Your task to perform on an android device: Is it going to rain tomorrow? Image 0: 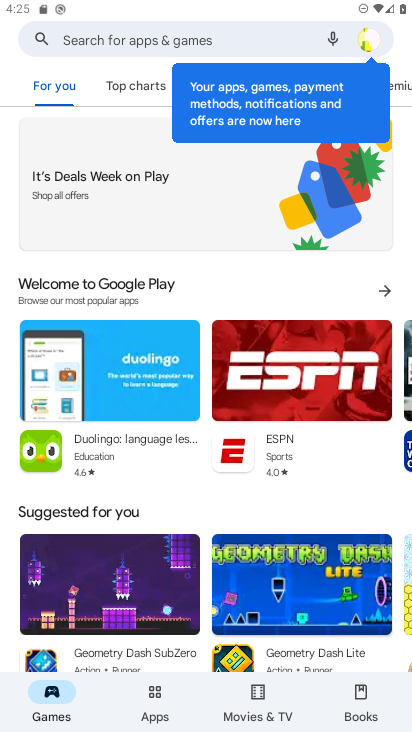
Step 0: press home button
Your task to perform on an android device: Is it going to rain tomorrow? Image 1: 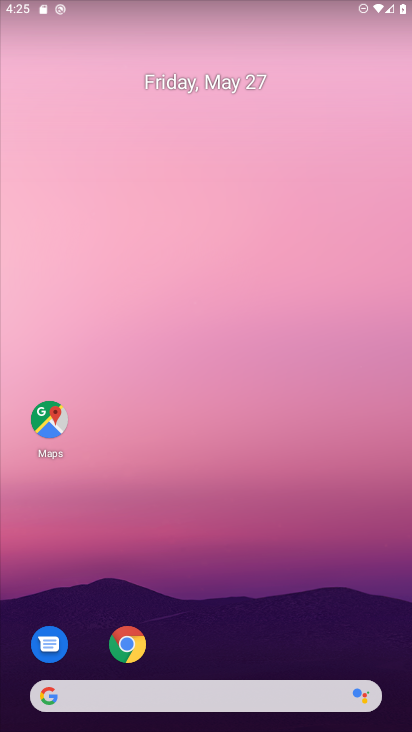
Step 1: click (155, 688)
Your task to perform on an android device: Is it going to rain tomorrow? Image 2: 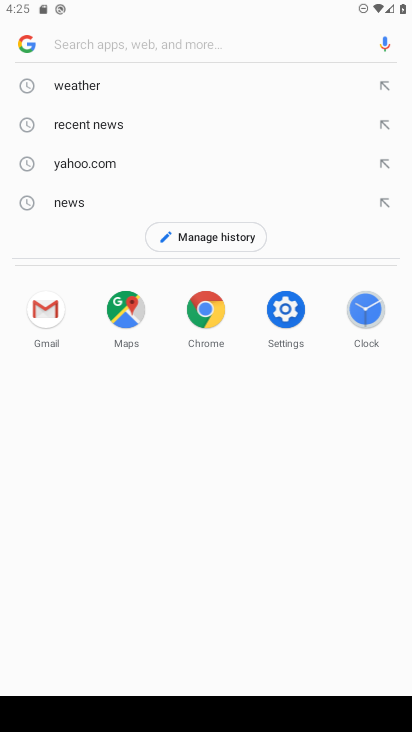
Step 2: click (109, 93)
Your task to perform on an android device: Is it going to rain tomorrow? Image 3: 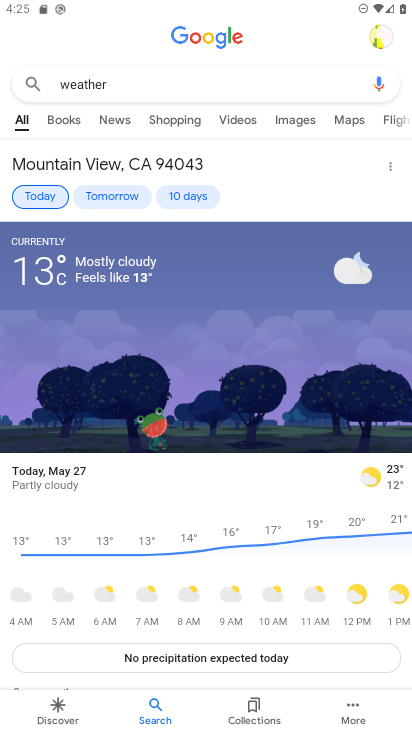
Step 3: click (113, 194)
Your task to perform on an android device: Is it going to rain tomorrow? Image 4: 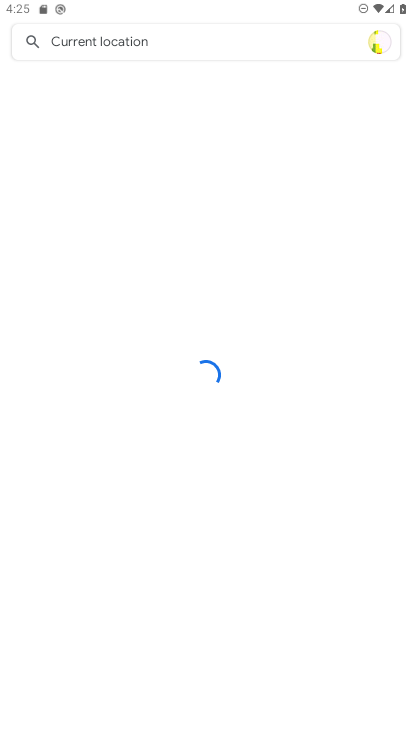
Step 4: click (113, 194)
Your task to perform on an android device: Is it going to rain tomorrow? Image 5: 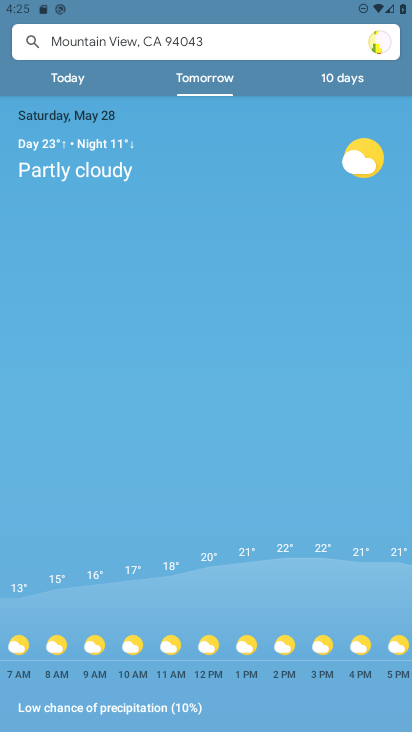
Step 5: task complete